Your task to perform on an android device: empty trash in google photos Image 0: 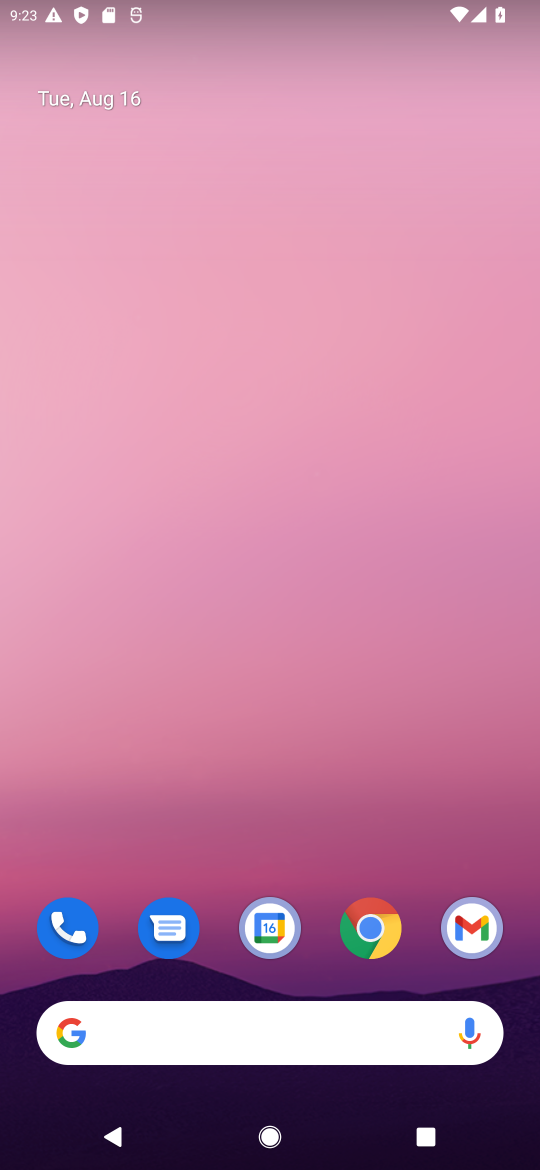
Step 0: press home button
Your task to perform on an android device: empty trash in google photos Image 1: 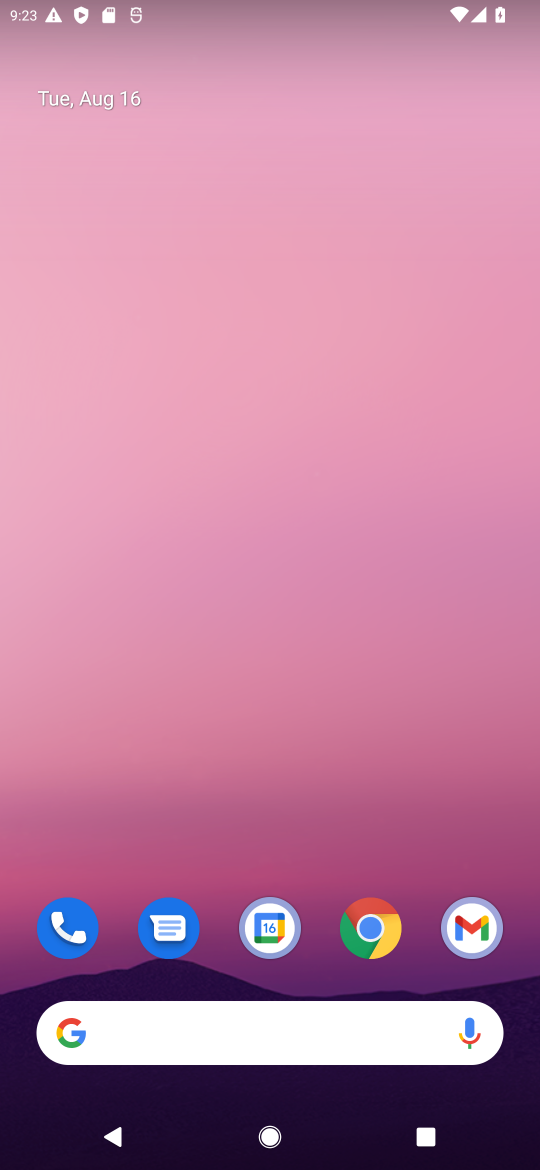
Step 1: drag from (233, 821) to (222, 85)
Your task to perform on an android device: empty trash in google photos Image 2: 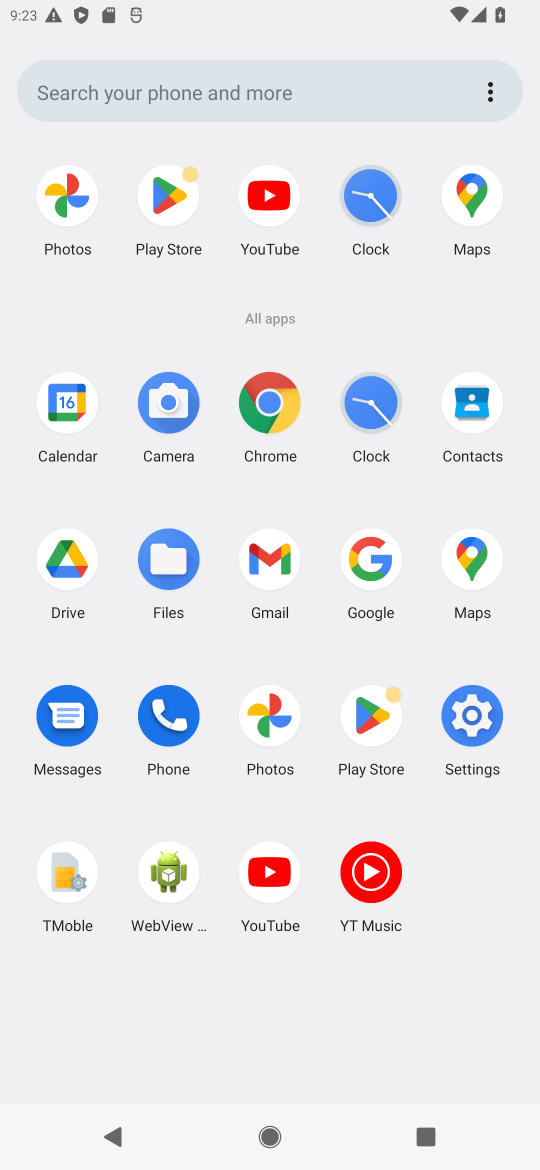
Step 2: click (271, 697)
Your task to perform on an android device: empty trash in google photos Image 3: 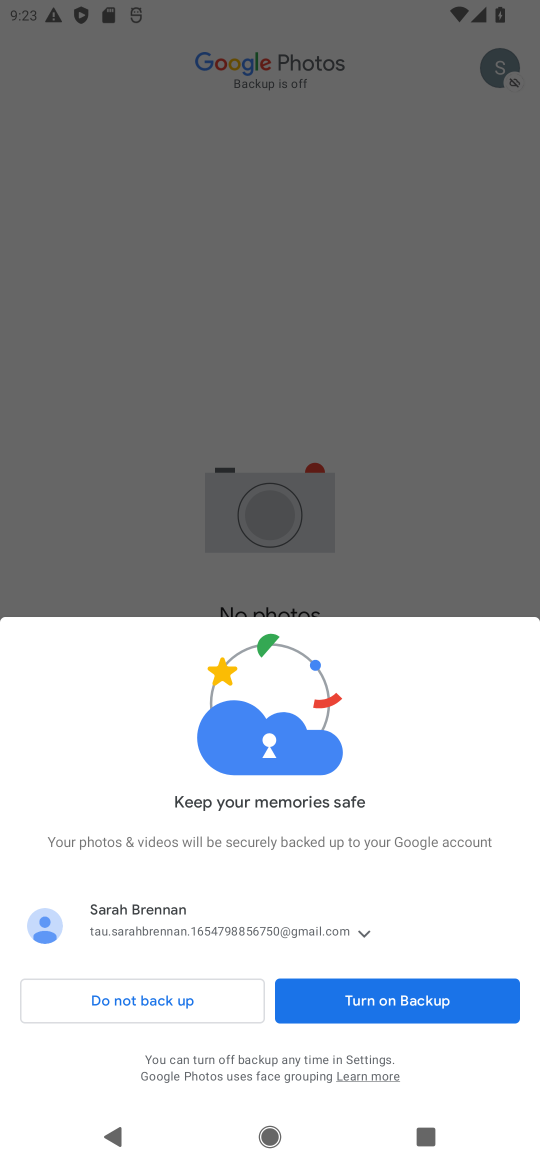
Step 3: click (483, 1076)
Your task to perform on an android device: empty trash in google photos Image 4: 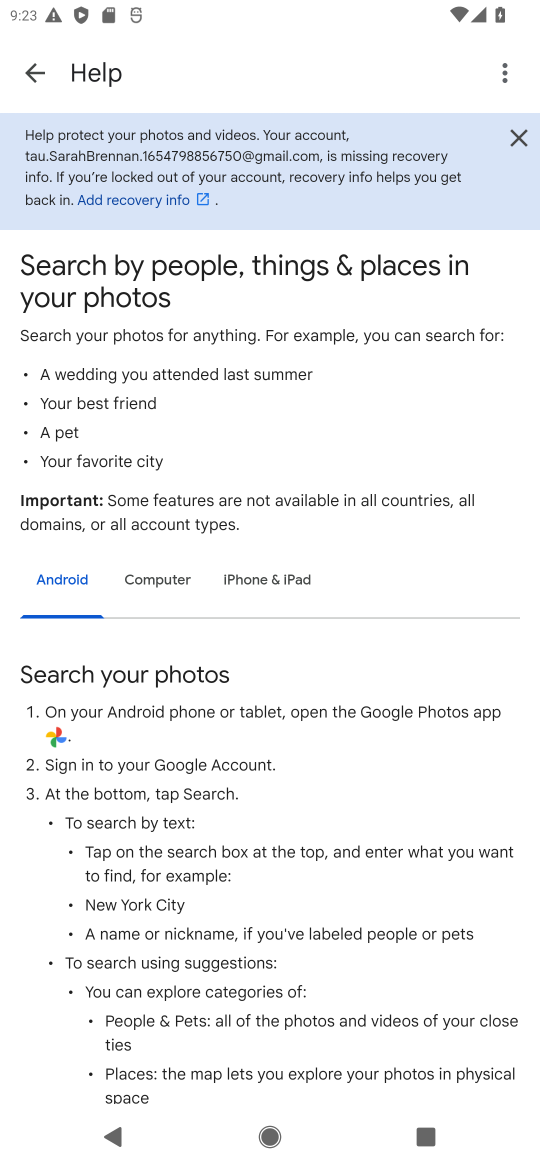
Step 4: click (34, 75)
Your task to perform on an android device: empty trash in google photos Image 5: 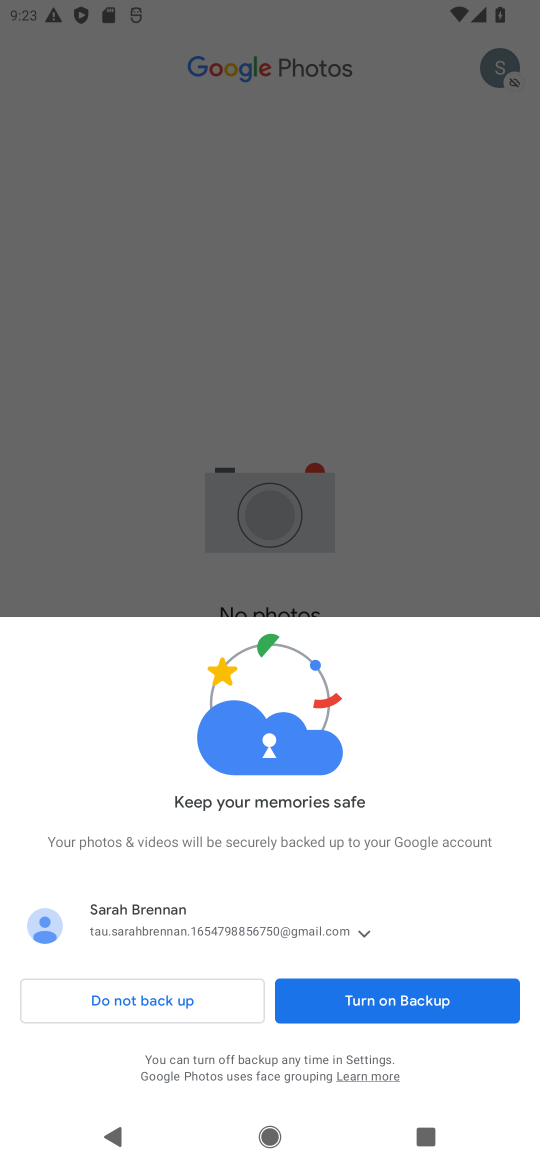
Step 5: click (472, 1005)
Your task to perform on an android device: empty trash in google photos Image 6: 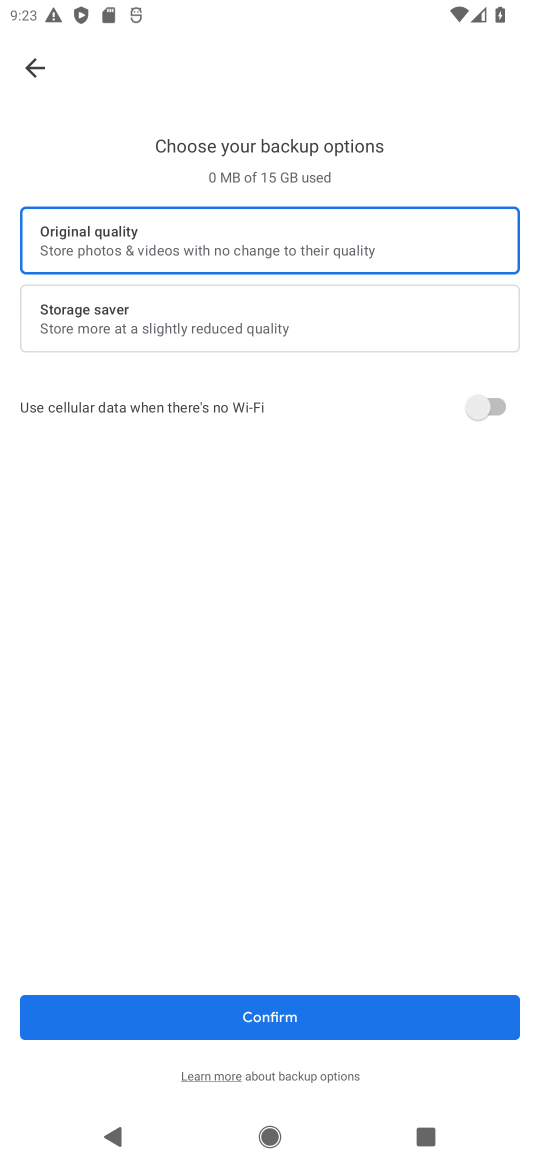
Step 6: click (329, 1019)
Your task to perform on an android device: empty trash in google photos Image 7: 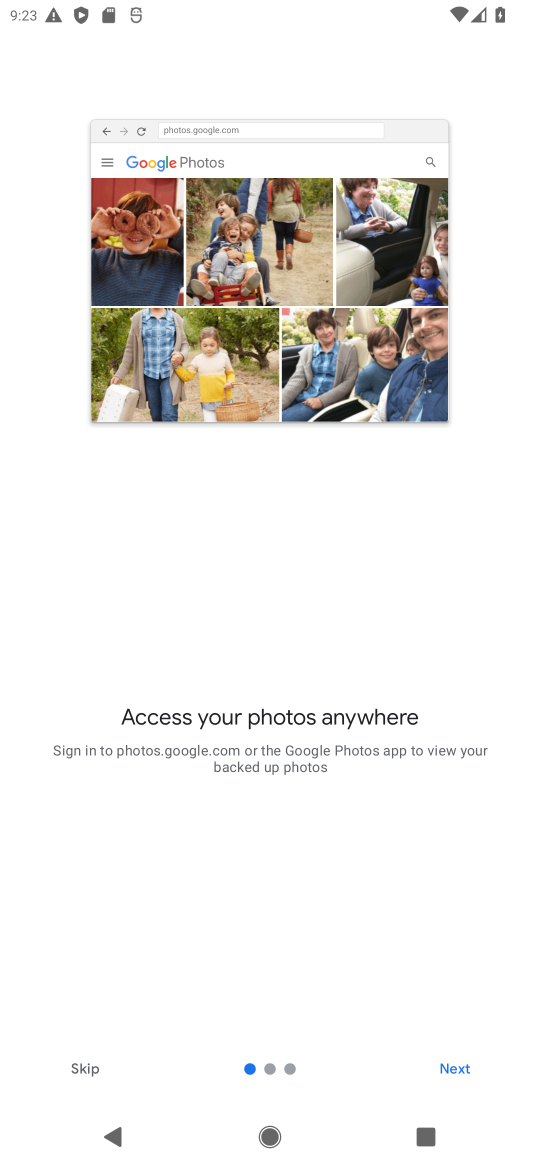
Step 7: click (453, 1071)
Your task to perform on an android device: empty trash in google photos Image 8: 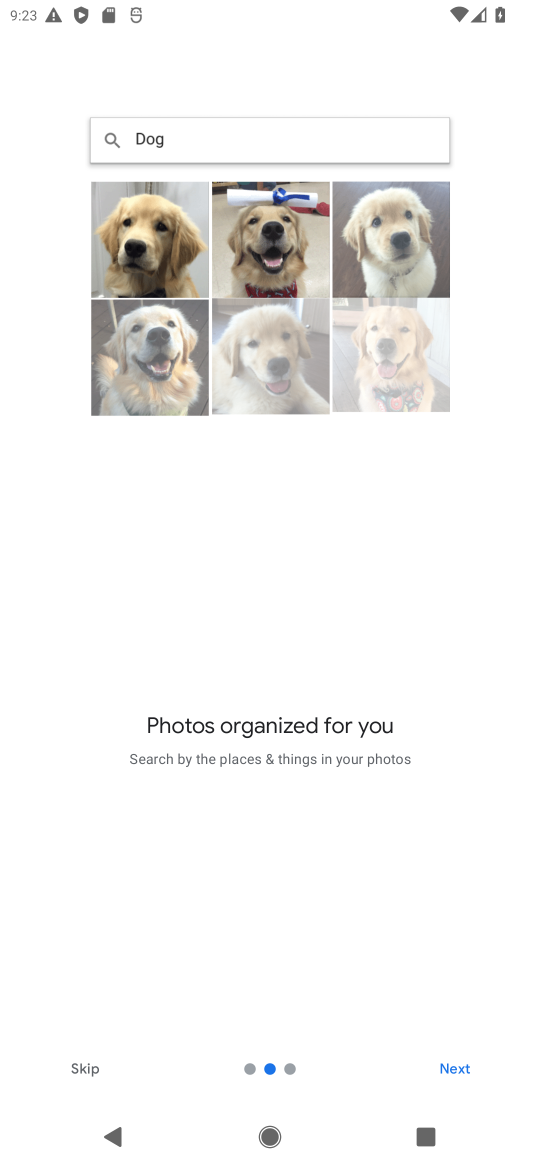
Step 8: click (453, 1071)
Your task to perform on an android device: empty trash in google photos Image 9: 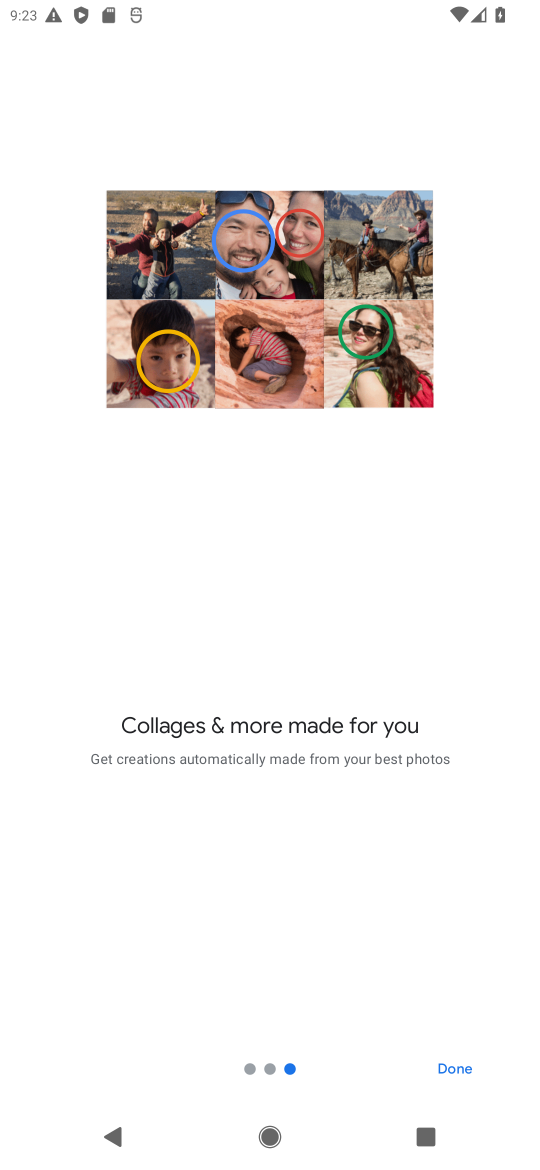
Step 9: click (443, 1070)
Your task to perform on an android device: empty trash in google photos Image 10: 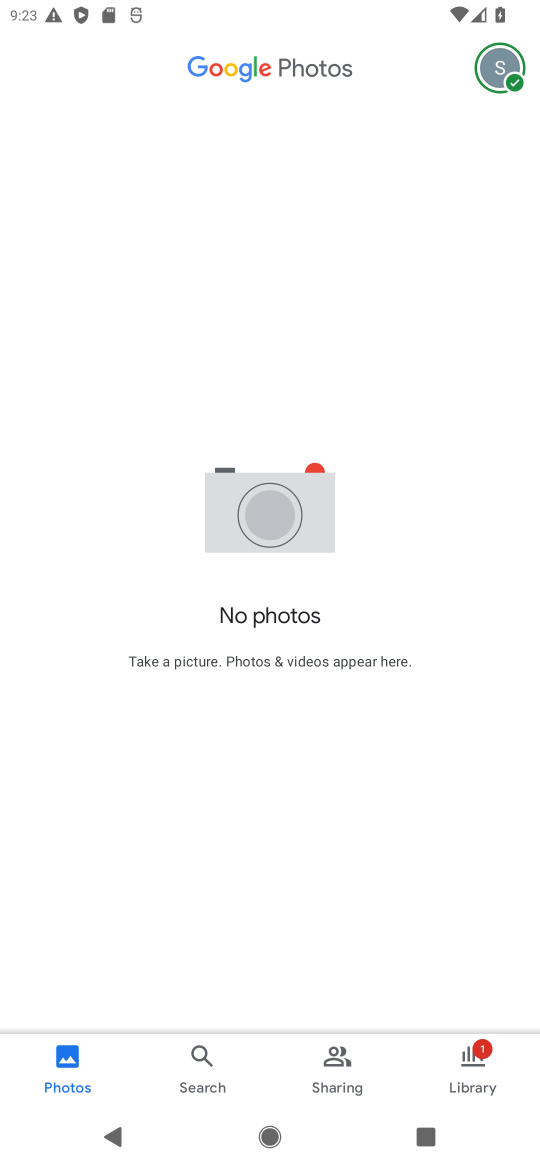
Step 10: click (461, 1053)
Your task to perform on an android device: empty trash in google photos Image 11: 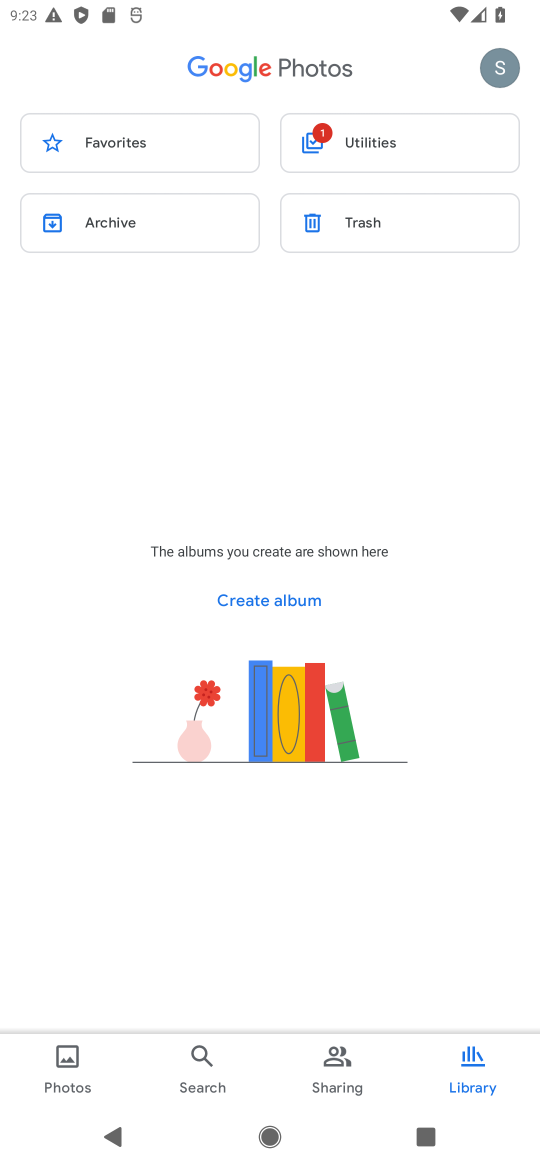
Step 11: click (381, 215)
Your task to perform on an android device: empty trash in google photos Image 12: 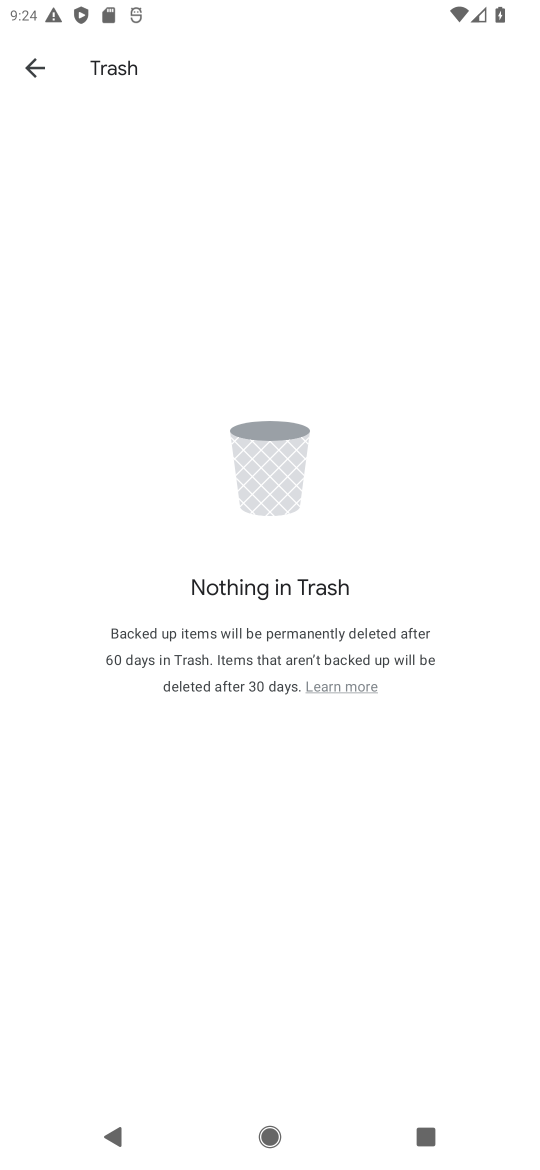
Step 12: task complete